Your task to perform on an android device: Is it going to rain this weekend? Image 0: 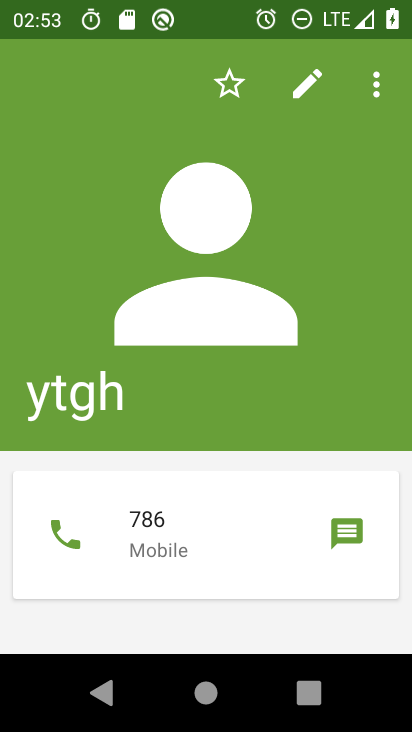
Step 0: press home button
Your task to perform on an android device: Is it going to rain this weekend? Image 1: 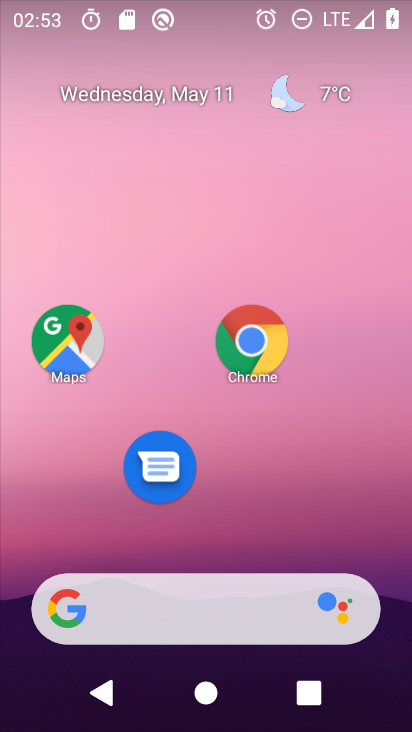
Step 1: click (309, 100)
Your task to perform on an android device: Is it going to rain this weekend? Image 2: 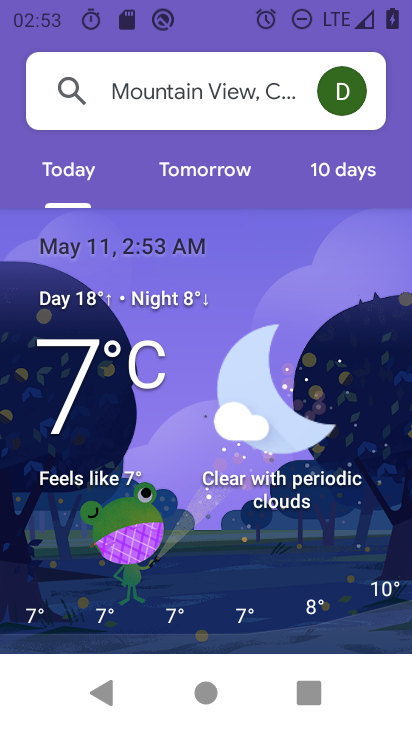
Step 2: click (341, 167)
Your task to perform on an android device: Is it going to rain this weekend? Image 3: 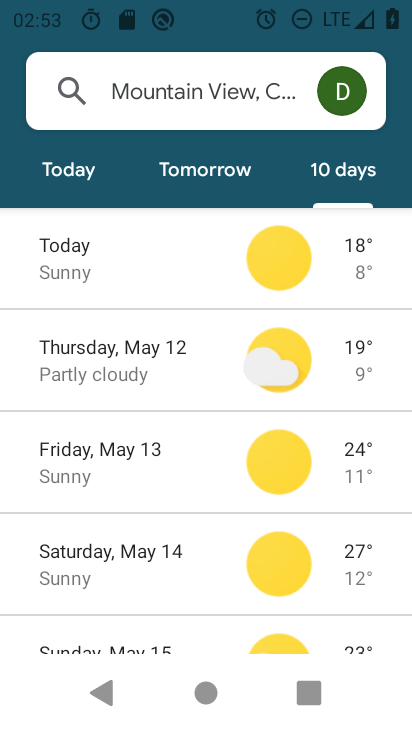
Step 3: click (102, 558)
Your task to perform on an android device: Is it going to rain this weekend? Image 4: 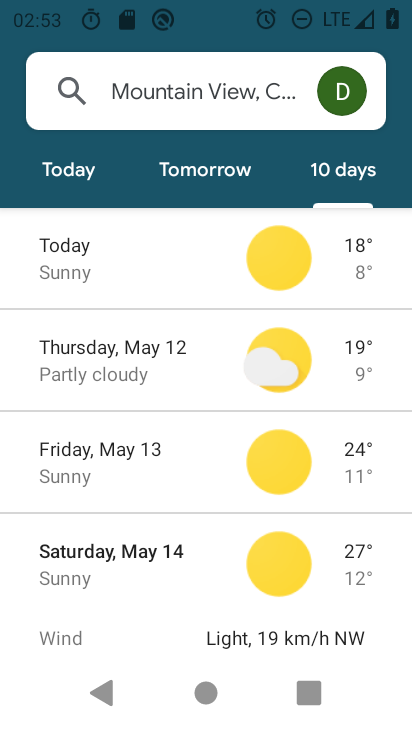
Step 4: task complete